Your task to perform on an android device: change text size in settings app Image 0: 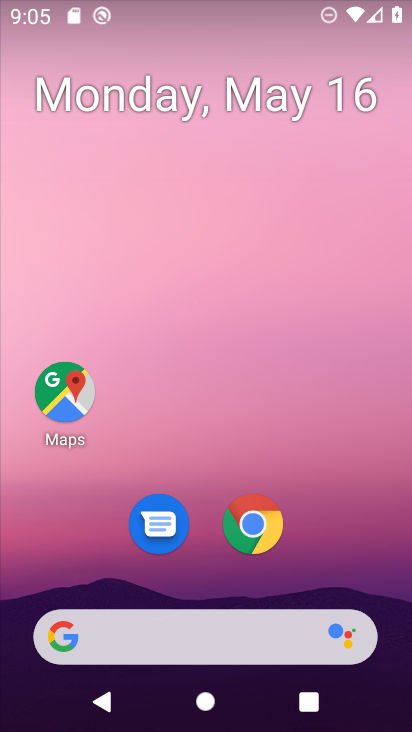
Step 0: drag from (292, 505) to (277, 87)
Your task to perform on an android device: change text size in settings app Image 1: 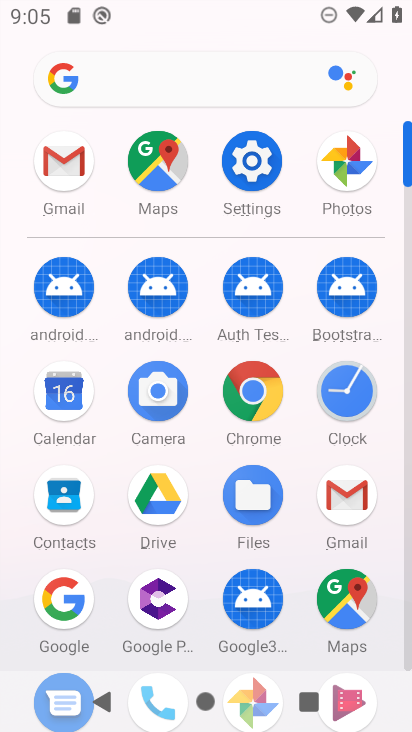
Step 1: click (247, 157)
Your task to perform on an android device: change text size in settings app Image 2: 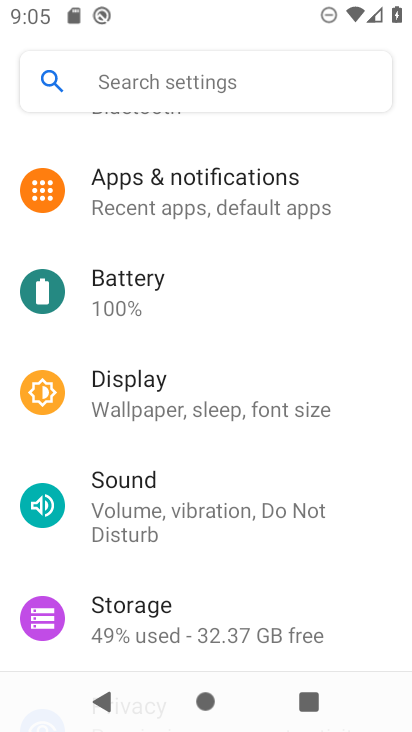
Step 2: click (233, 398)
Your task to perform on an android device: change text size in settings app Image 3: 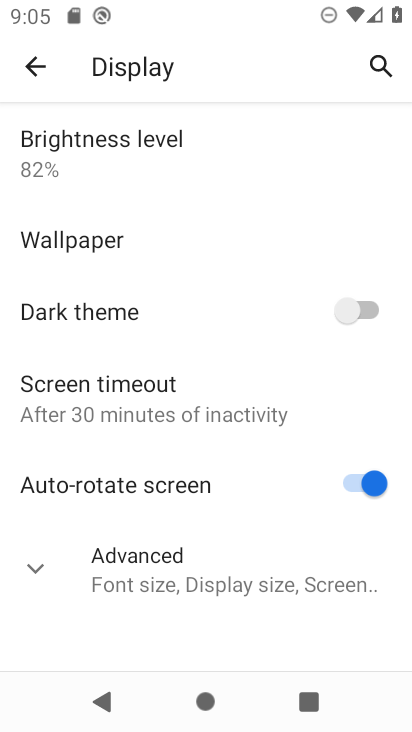
Step 3: click (29, 562)
Your task to perform on an android device: change text size in settings app Image 4: 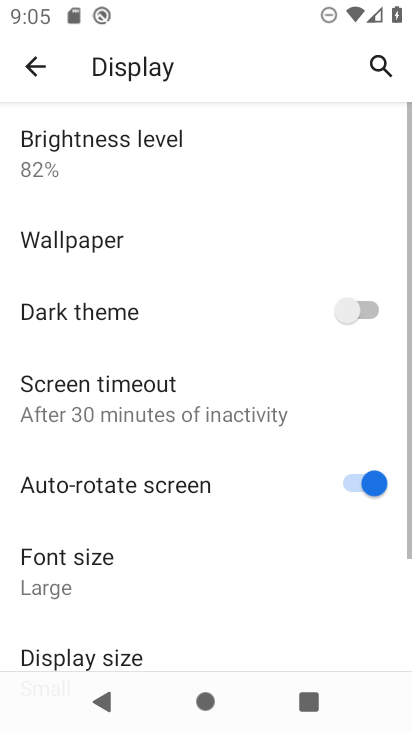
Step 4: drag from (240, 383) to (203, 76)
Your task to perform on an android device: change text size in settings app Image 5: 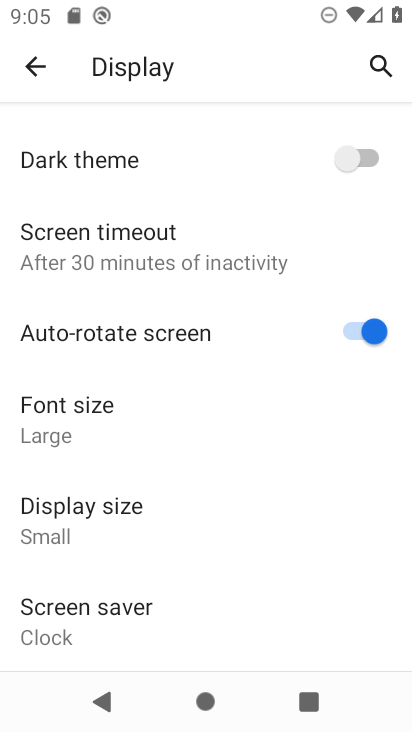
Step 5: click (97, 418)
Your task to perform on an android device: change text size in settings app Image 6: 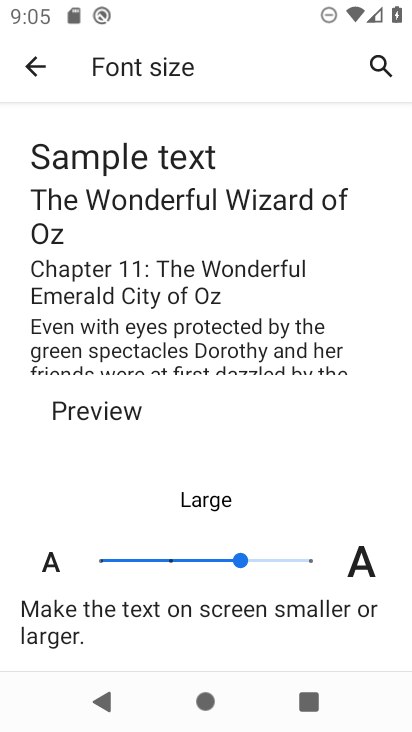
Step 6: click (170, 555)
Your task to perform on an android device: change text size in settings app Image 7: 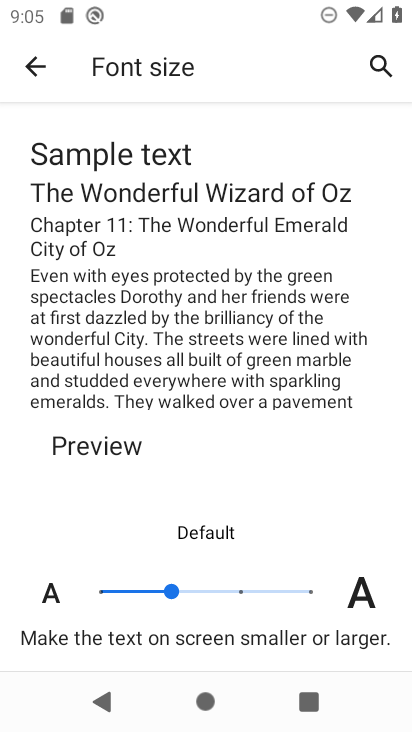
Step 7: click (35, 65)
Your task to perform on an android device: change text size in settings app Image 8: 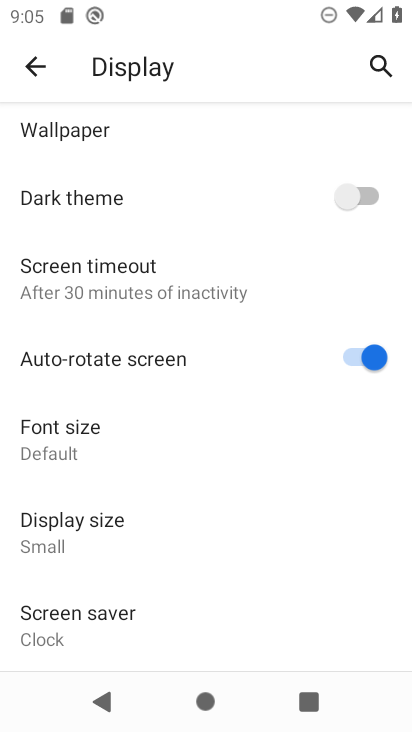
Step 8: task complete